Your task to perform on an android device: add a contact Image 0: 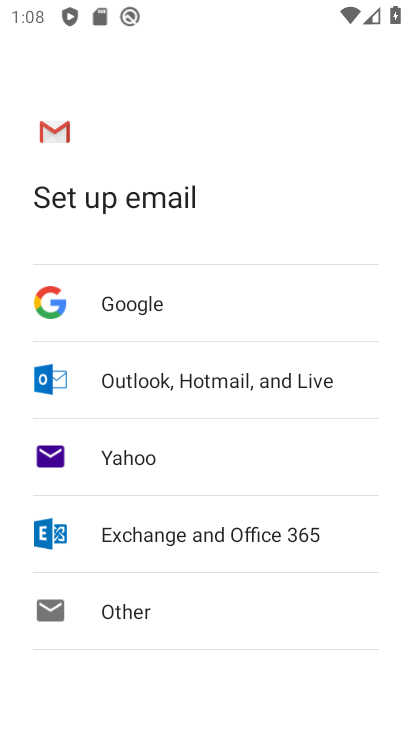
Step 0: press home button
Your task to perform on an android device: add a contact Image 1: 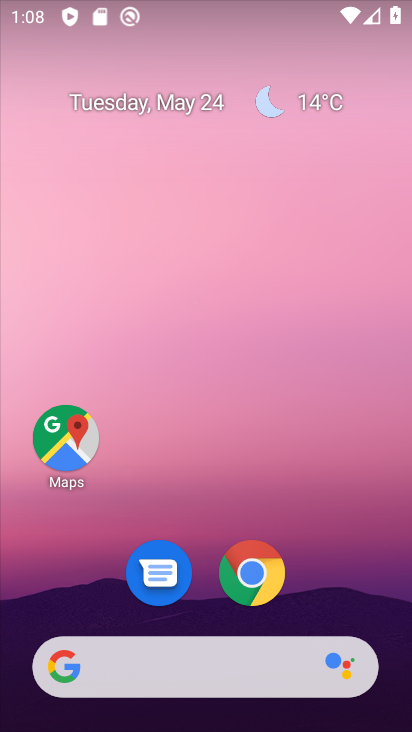
Step 1: drag from (366, 552) to (270, 55)
Your task to perform on an android device: add a contact Image 2: 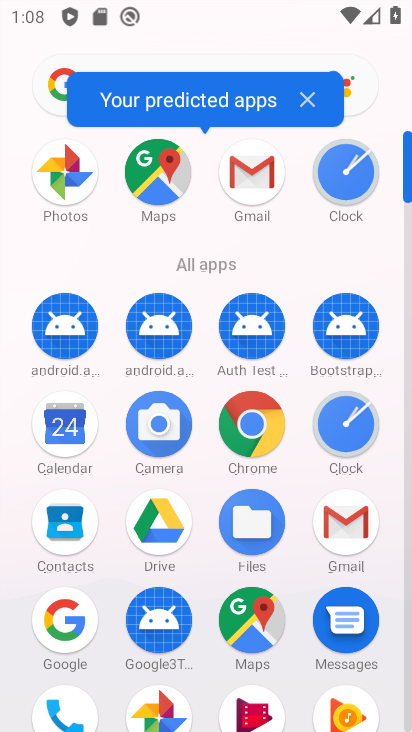
Step 2: click (72, 527)
Your task to perform on an android device: add a contact Image 3: 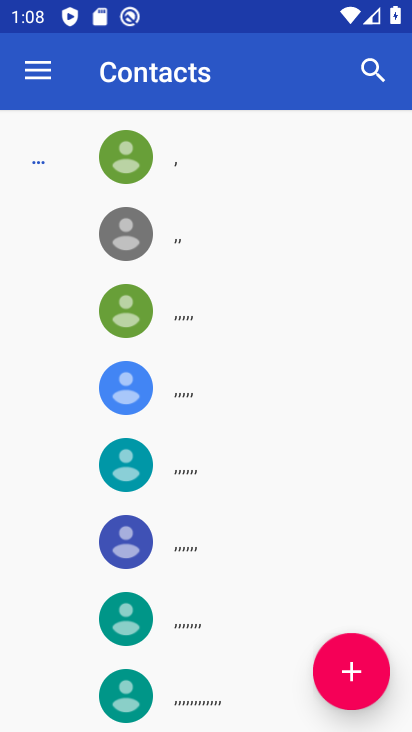
Step 3: click (362, 671)
Your task to perform on an android device: add a contact Image 4: 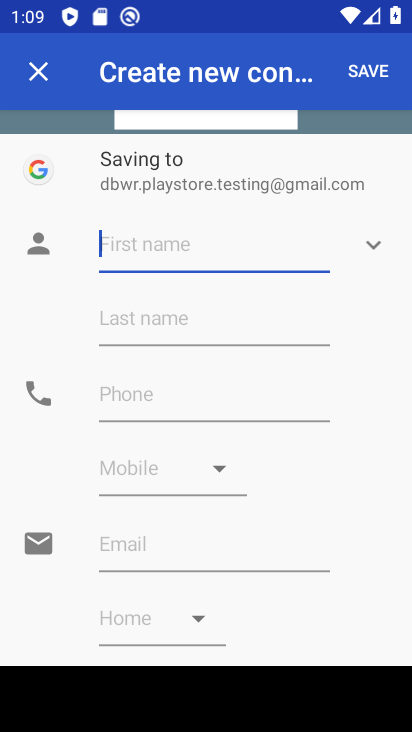
Step 4: click (377, 82)
Your task to perform on an android device: add a contact Image 5: 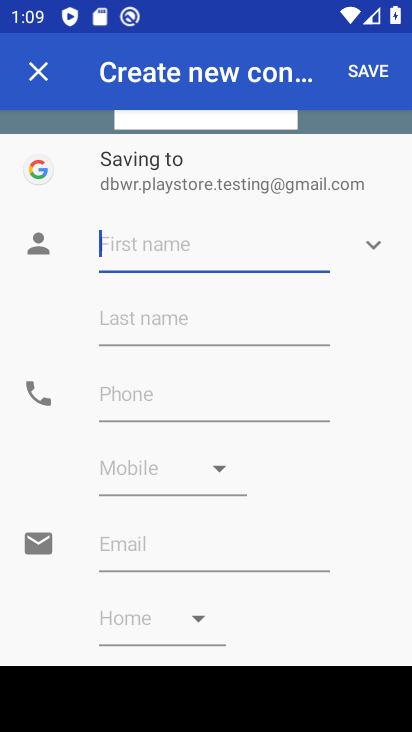
Step 5: type "ee"
Your task to perform on an android device: add a contact Image 6: 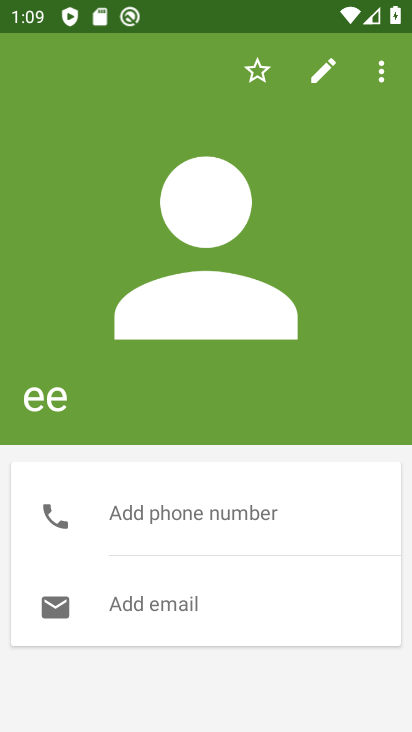
Step 6: task complete